Your task to perform on an android device: Turn off the flashlight Image 0: 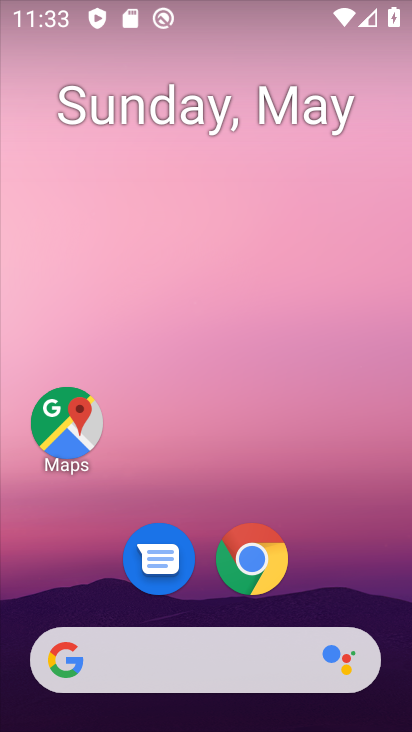
Step 0: drag from (310, 160) to (356, 491)
Your task to perform on an android device: Turn off the flashlight Image 1: 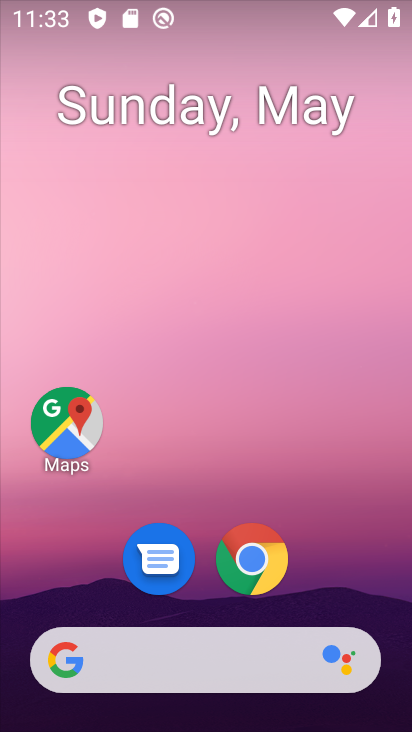
Step 1: task complete